Your task to perform on an android device: turn on data saver in the chrome app Image 0: 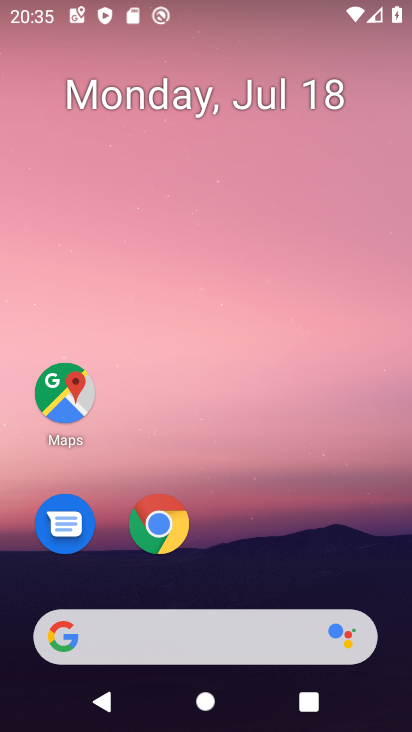
Step 0: click (167, 527)
Your task to perform on an android device: turn on data saver in the chrome app Image 1: 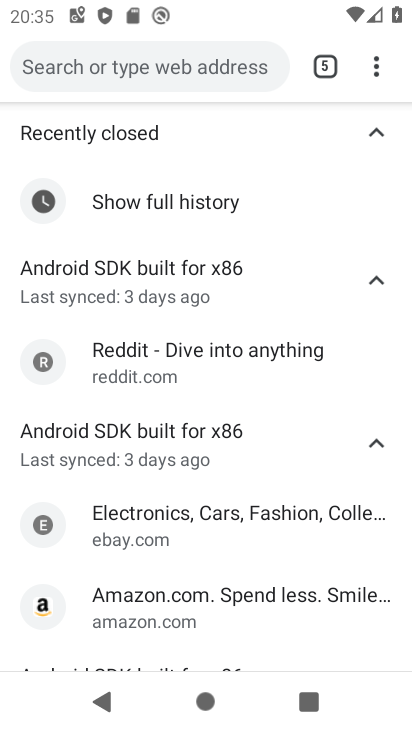
Step 1: click (372, 66)
Your task to perform on an android device: turn on data saver in the chrome app Image 2: 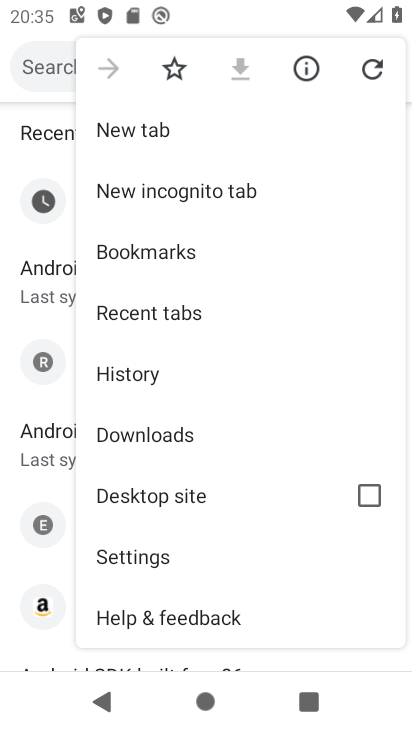
Step 2: click (165, 558)
Your task to perform on an android device: turn on data saver in the chrome app Image 3: 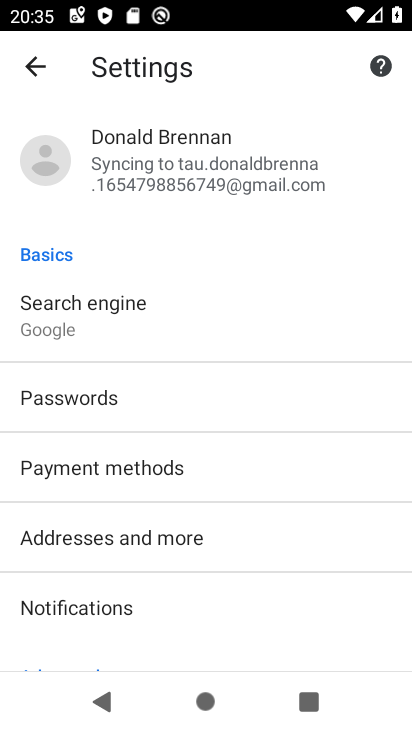
Step 3: drag from (227, 619) to (215, 209)
Your task to perform on an android device: turn on data saver in the chrome app Image 4: 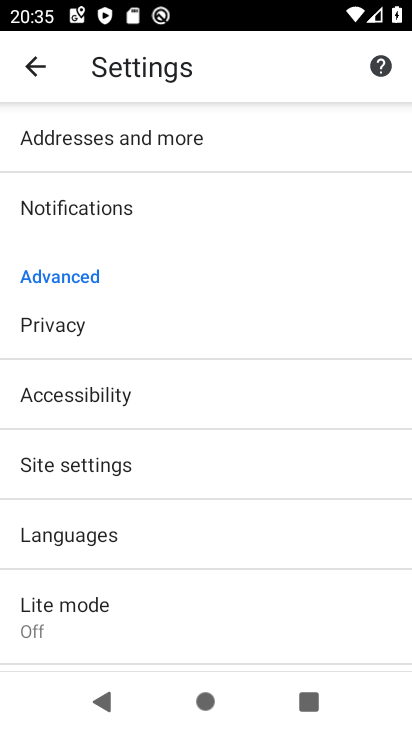
Step 4: click (93, 625)
Your task to perform on an android device: turn on data saver in the chrome app Image 5: 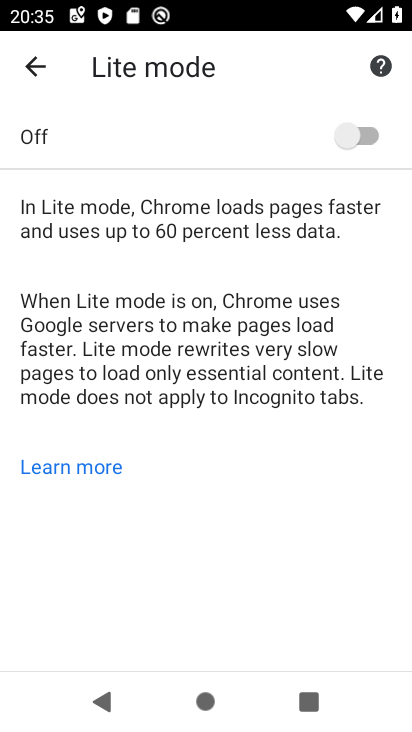
Step 5: click (348, 130)
Your task to perform on an android device: turn on data saver in the chrome app Image 6: 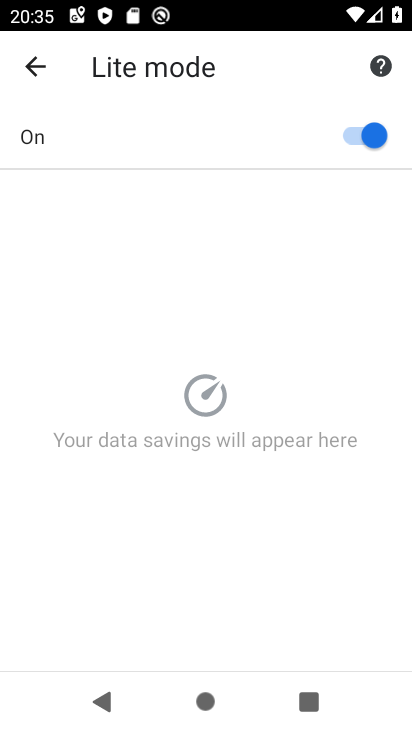
Step 6: task complete